Your task to perform on an android device: remove spam from my inbox in the gmail app Image 0: 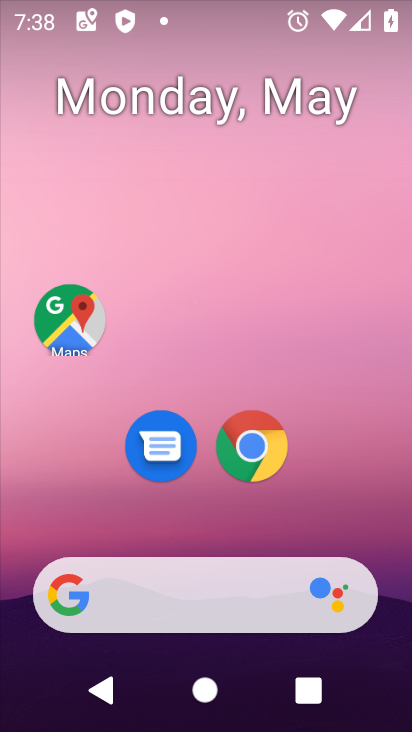
Step 0: drag from (334, 515) to (225, 104)
Your task to perform on an android device: remove spam from my inbox in the gmail app Image 1: 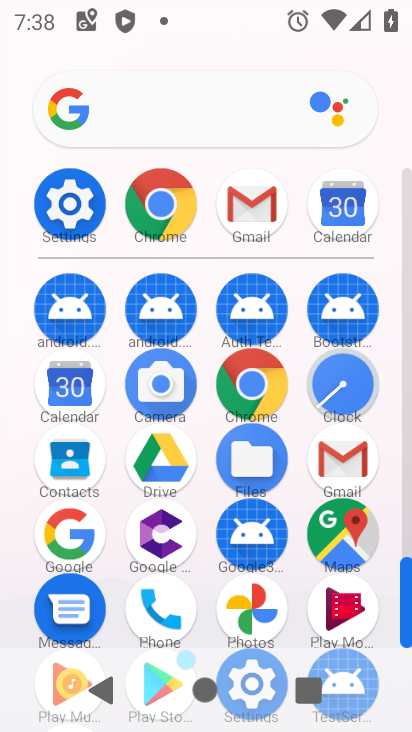
Step 1: click (258, 204)
Your task to perform on an android device: remove spam from my inbox in the gmail app Image 2: 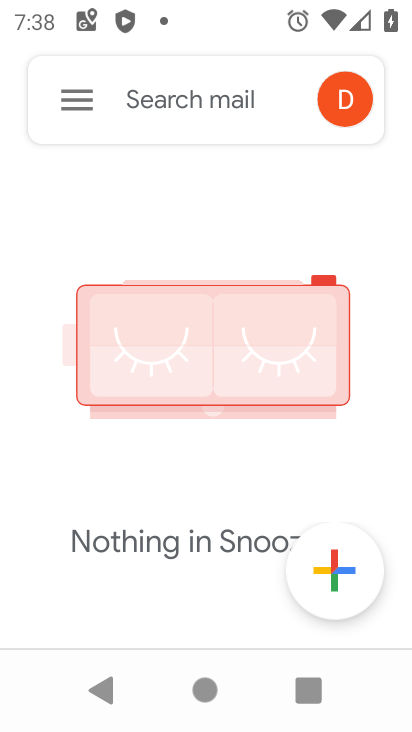
Step 2: click (77, 99)
Your task to perform on an android device: remove spam from my inbox in the gmail app Image 3: 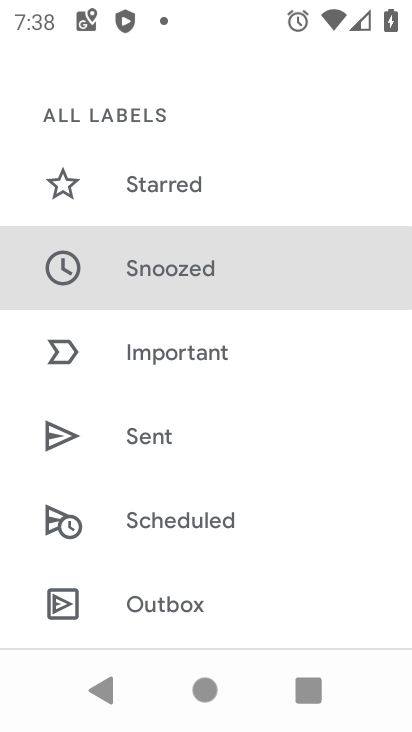
Step 3: drag from (205, 468) to (171, 194)
Your task to perform on an android device: remove spam from my inbox in the gmail app Image 4: 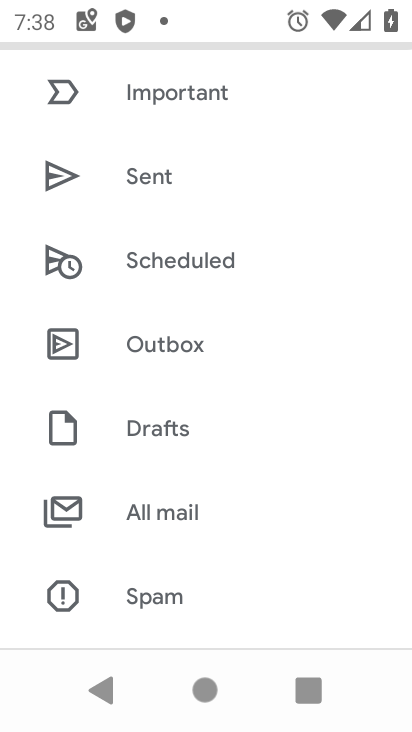
Step 4: click (150, 594)
Your task to perform on an android device: remove spam from my inbox in the gmail app Image 5: 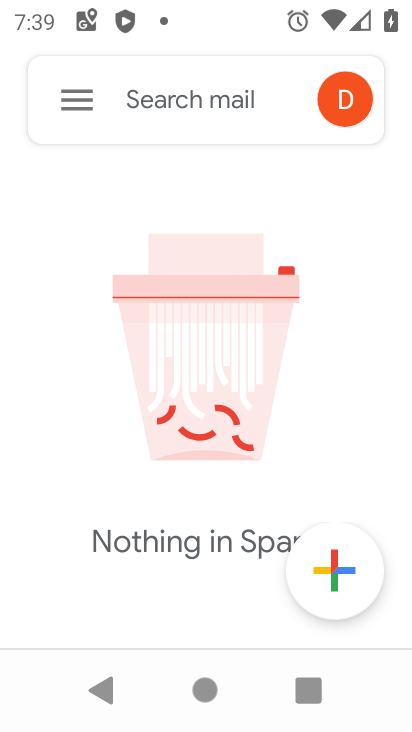
Step 5: task complete